Your task to perform on an android device: see sites visited before in the chrome app Image 0: 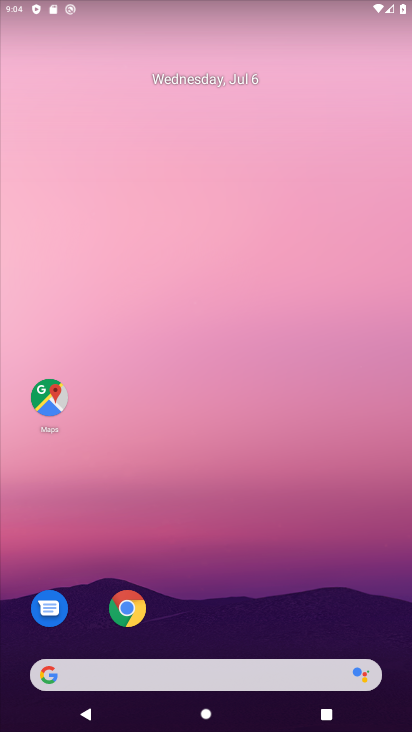
Step 0: click (130, 601)
Your task to perform on an android device: see sites visited before in the chrome app Image 1: 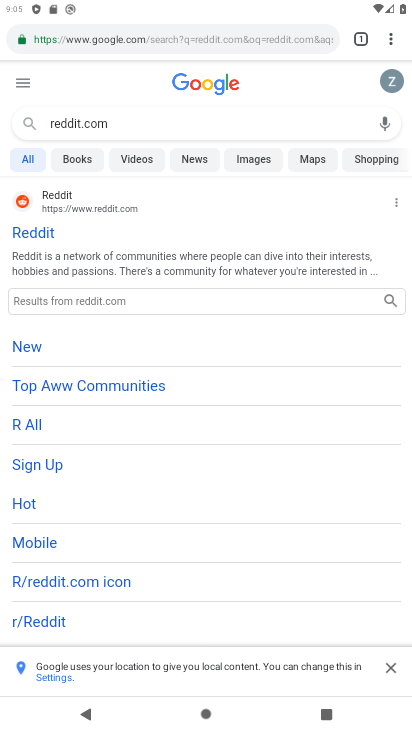
Step 1: click (389, 39)
Your task to perform on an android device: see sites visited before in the chrome app Image 2: 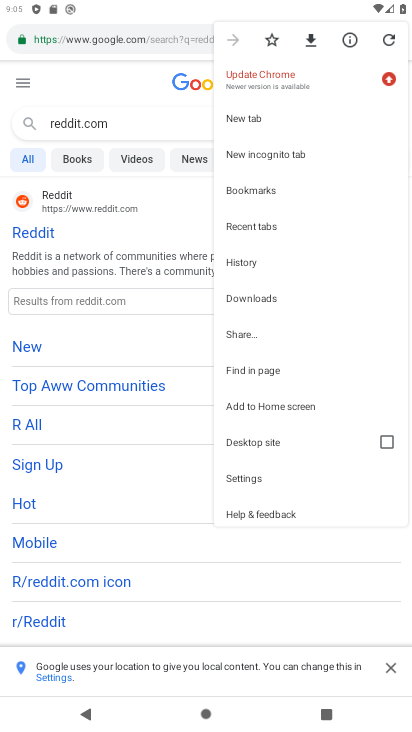
Step 2: click (246, 256)
Your task to perform on an android device: see sites visited before in the chrome app Image 3: 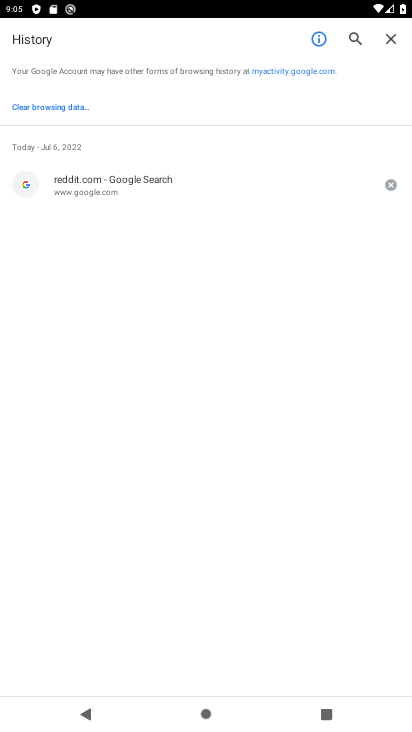
Step 3: task complete